Your task to perform on an android device: Go to ESPN.com Image 0: 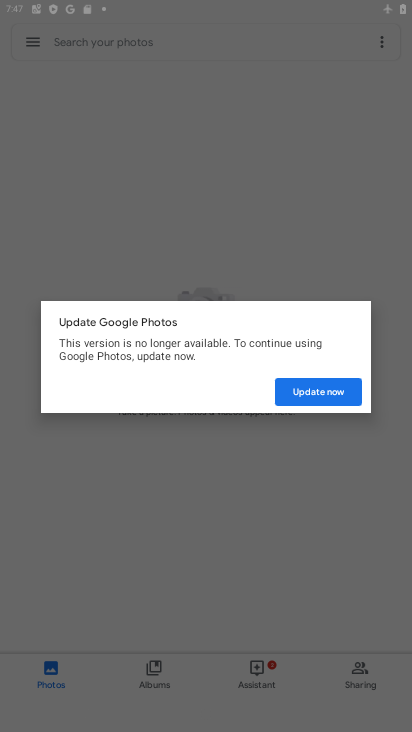
Step 0: drag from (326, 660) to (240, 55)
Your task to perform on an android device: Go to ESPN.com Image 1: 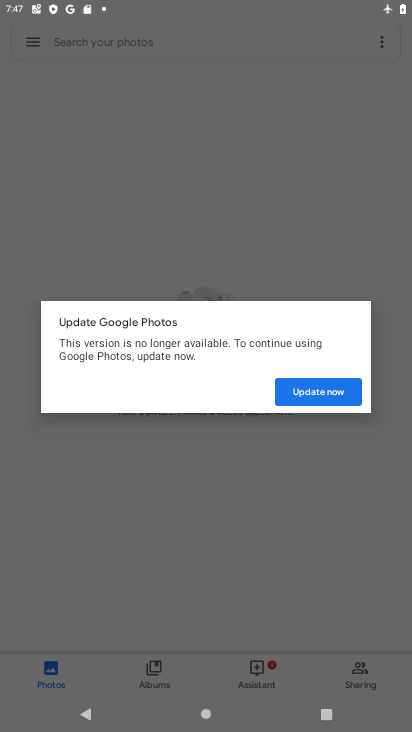
Step 1: click (206, 139)
Your task to perform on an android device: Go to ESPN.com Image 2: 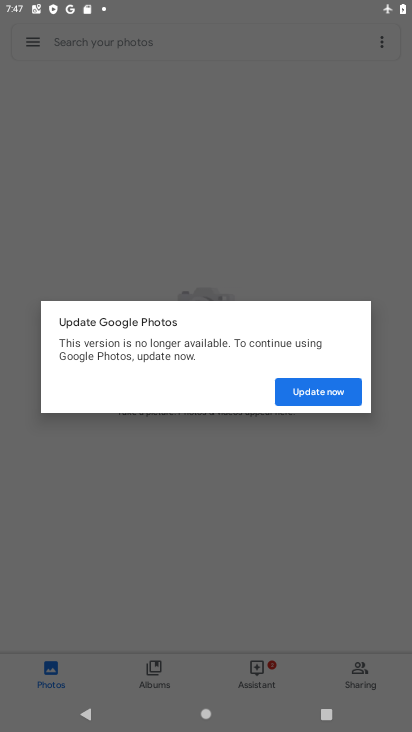
Step 2: click (206, 139)
Your task to perform on an android device: Go to ESPN.com Image 3: 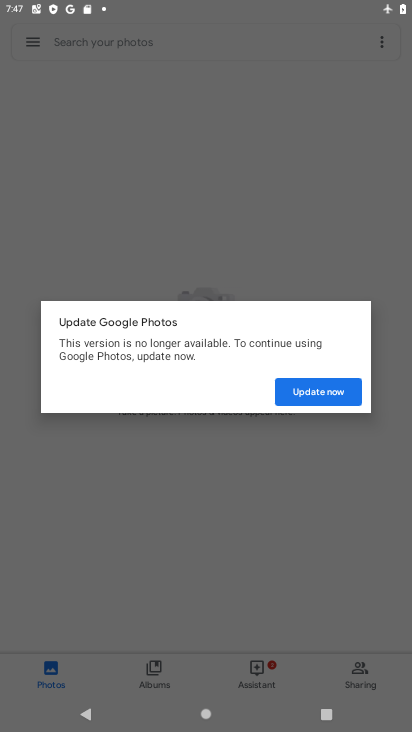
Step 3: click (207, 143)
Your task to perform on an android device: Go to ESPN.com Image 4: 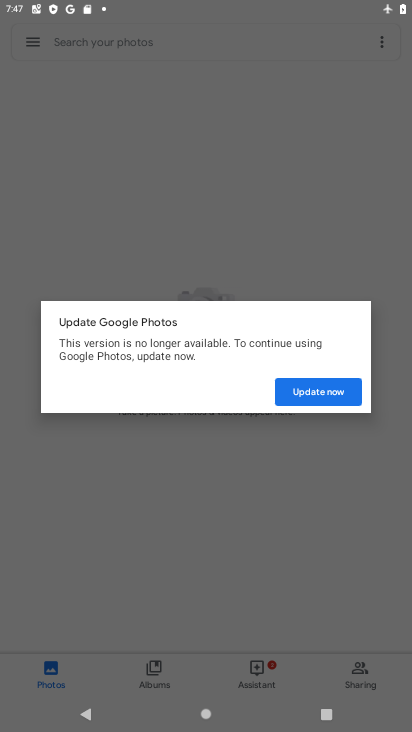
Step 4: click (220, 167)
Your task to perform on an android device: Go to ESPN.com Image 5: 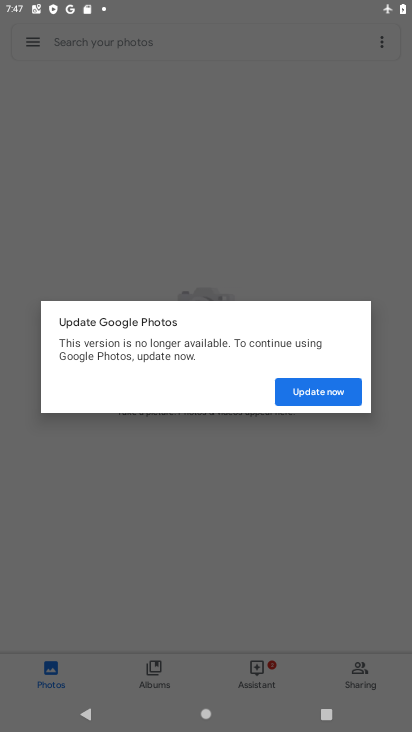
Step 5: click (236, 186)
Your task to perform on an android device: Go to ESPN.com Image 6: 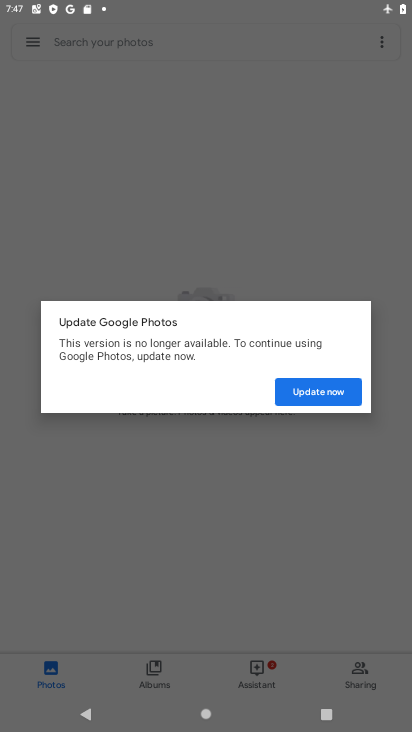
Step 6: click (263, 203)
Your task to perform on an android device: Go to ESPN.com Image 7: 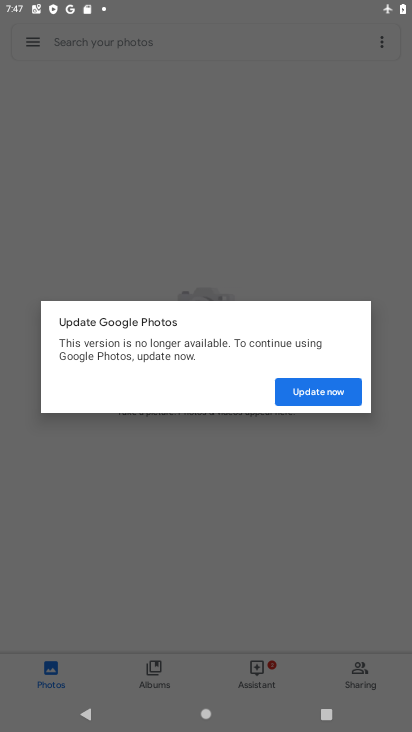
Step 7: click (402, 261)
Your task to perform on an android device: Go to ESPN.com Image 8: 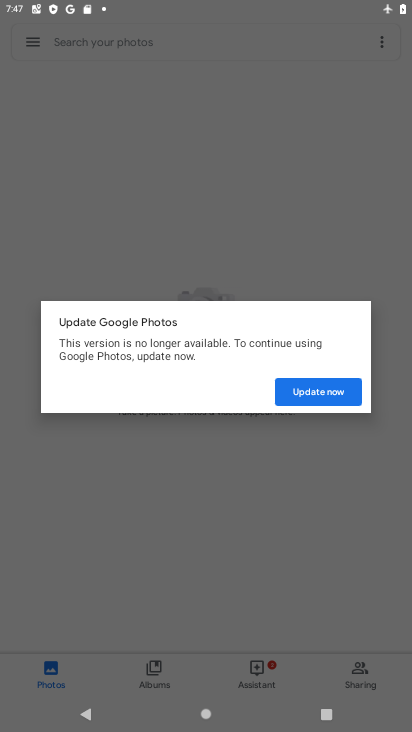
Step 8: click (248, 439)
Your task to perform on an android device: Go to ESPN.com Image 9: 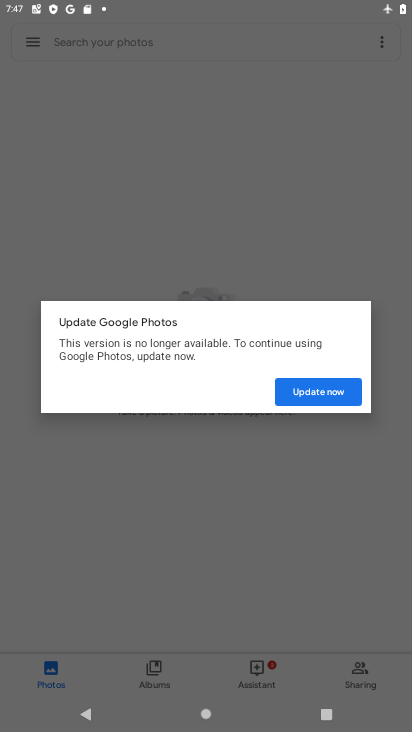
Step 9: click (242, 457)
Your task to perform on an android device: Go to ESPN.com Image 10: 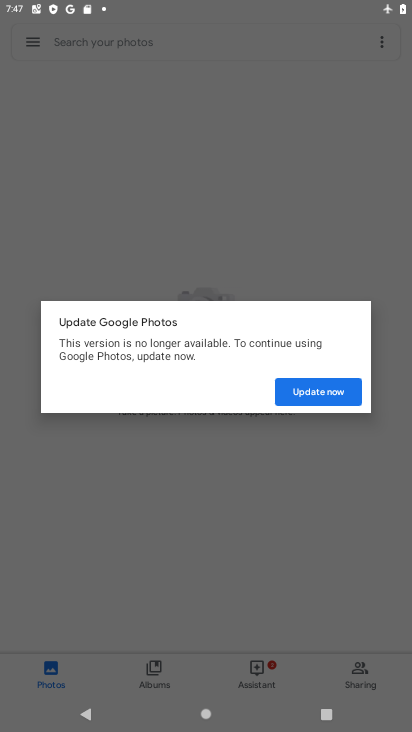
Step 10: click (242, 459)
Your task to perform on an android device: Go to ESPN.com Image 11: 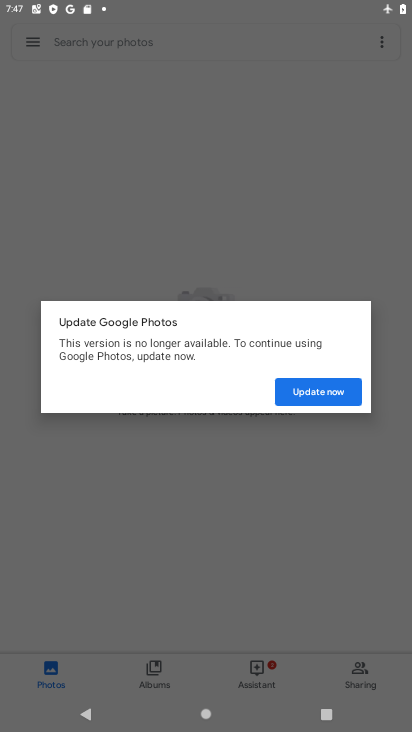
Step 11: click (259, 166)
Your task to perform on an android device: Go to ESPN.com Image 12: 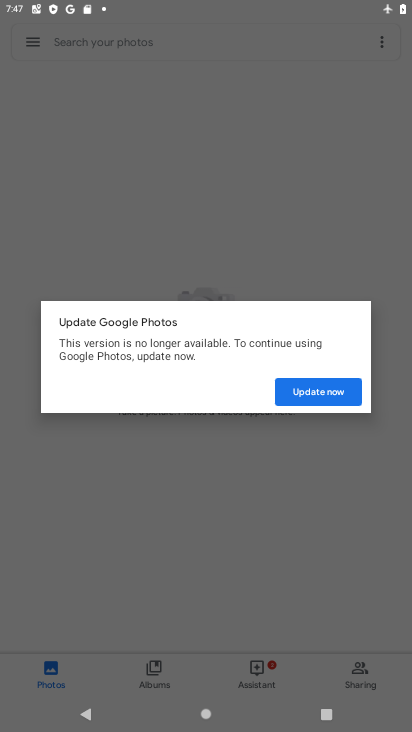
Step 12: click (270, 170)
Your task to perform on an android device: Go to ESPN.com Image 13: 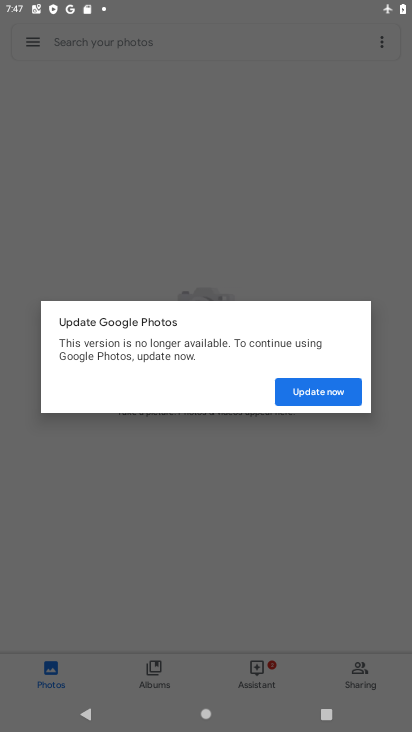
Step 13: click (287, 186)
Your task to perform on an android device: Go to ESPN.com Image 14: 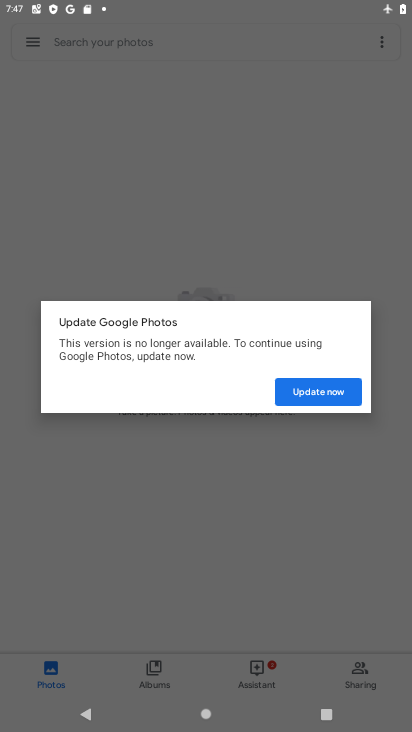
Step 14: click (291, 187)
Your task to perform on an android device: Go to ESPN.com Image 15: 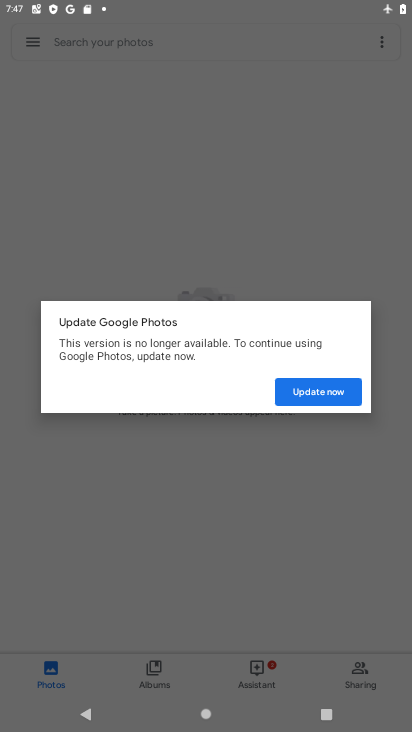
Step 15: click (339, 170)
Your task to perform on an android device: Go to ESPN.com Image 16: 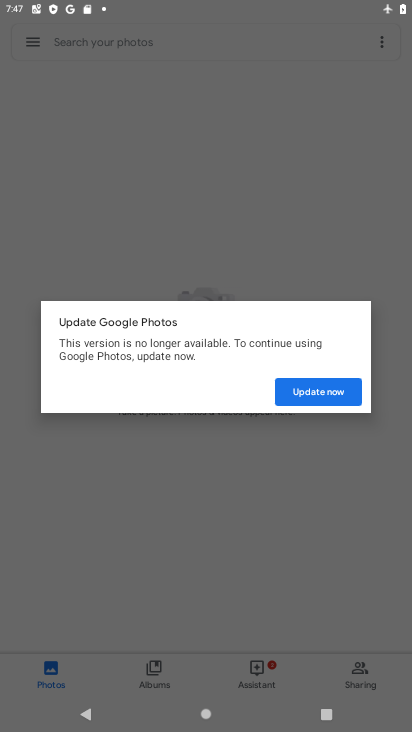
Step 16: click (340, 184)
Your task to perform on an android device: Go to ESPN.com Image 17: 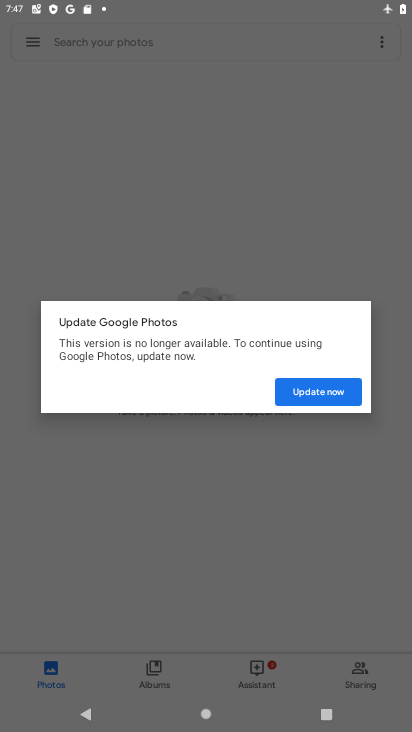
Step 17: click (344, 191)
Your task to perform on an android device: Go to ESPN.com Image 18: 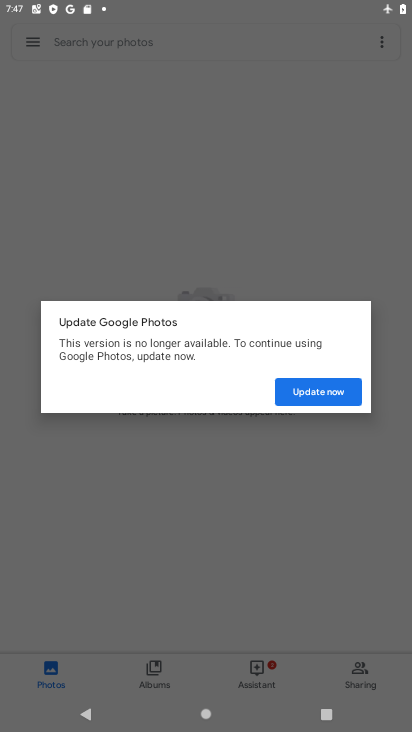
Step 18: click (400, 254)
Your task to perform on an android device: Go to ESPN.com Image 19: 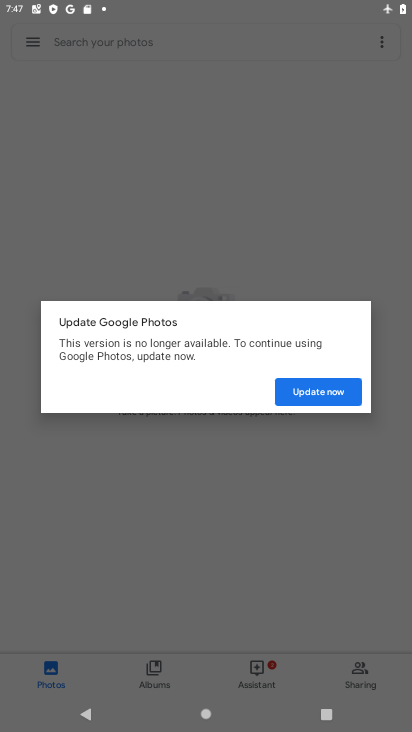
Step 19: click (372, 238)
Your task to perform on an android device: Go to ESPN.com Image 20: 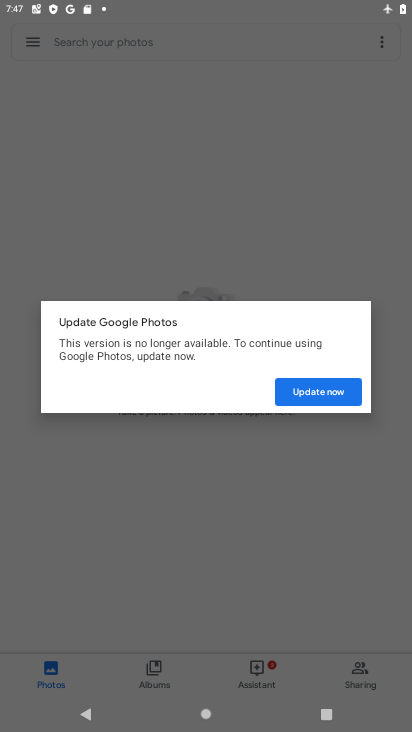
Step 20: click (372, 238)
Your task to perform on an android device: Go to ESPN.com Image 21: 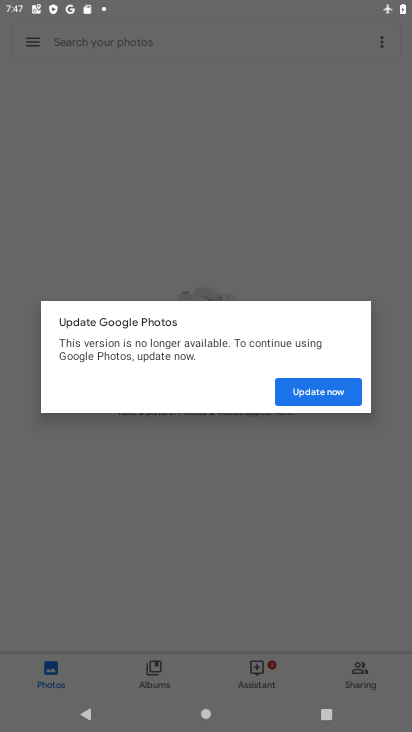
Step 21: click (381, 274)
Your task to perform on an android device: Go to ESPN.com Image 22: 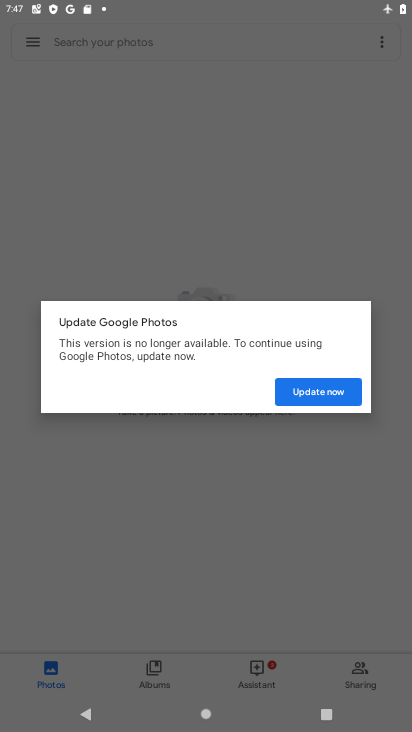
Step 22: click (381, 275)
Your task to perform on an android device: Go to ESPN.com Image 23: 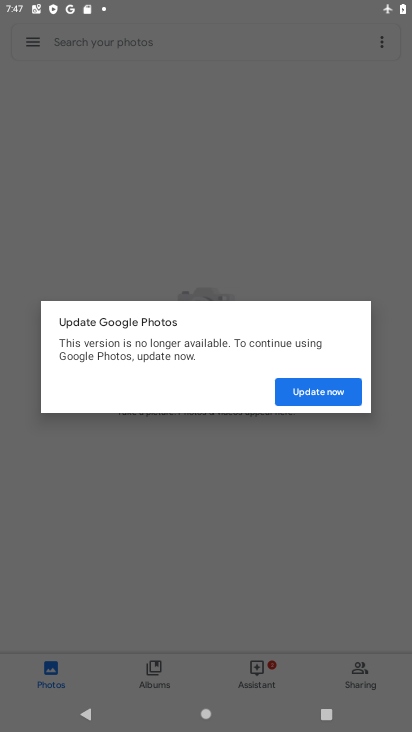
Step 23: click (352, 277)
Your task to perform on an android device: Go to ESPN.com Image 24: 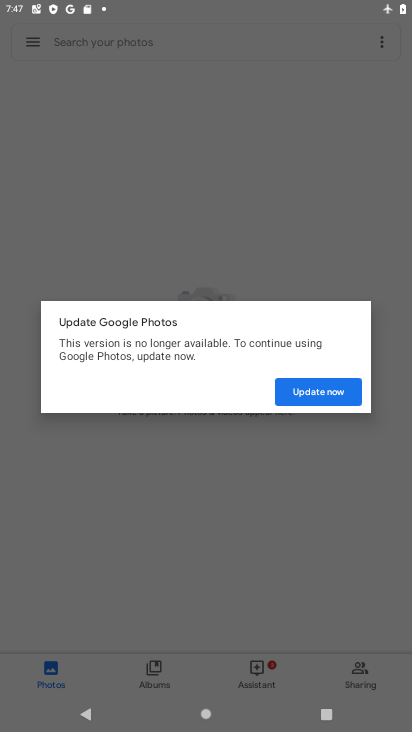
Step 24: click (336, 271)
Your task to perform on an android device: Go to ESPN.com Image 25: 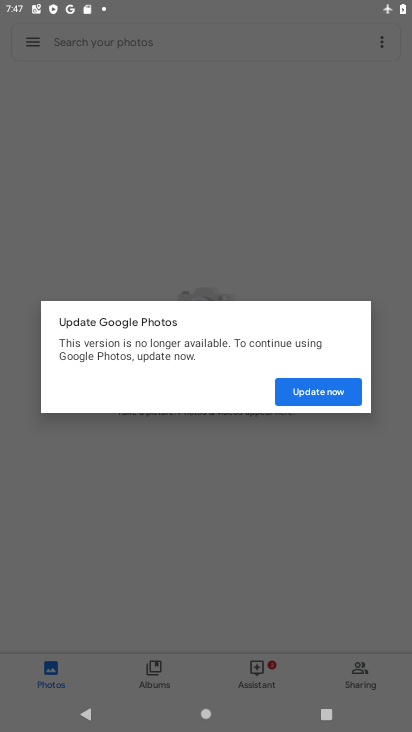
Step 25: press back button
Your task to perform on an android device: Go to ESPN.com Image 26: 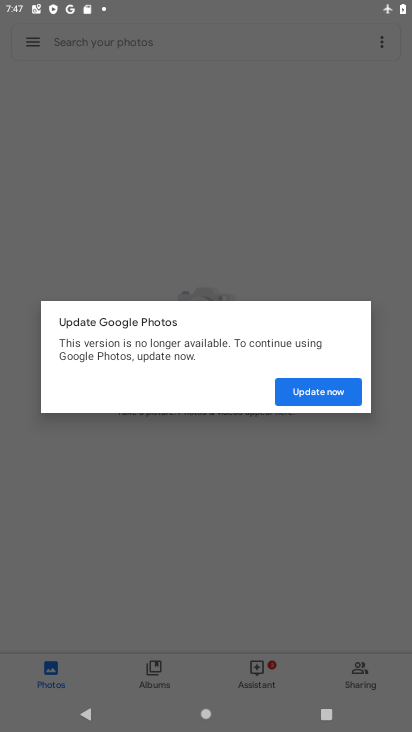
Step 26: press back button
Your task to perform on an android device: Go to ESPN.com Image 27: 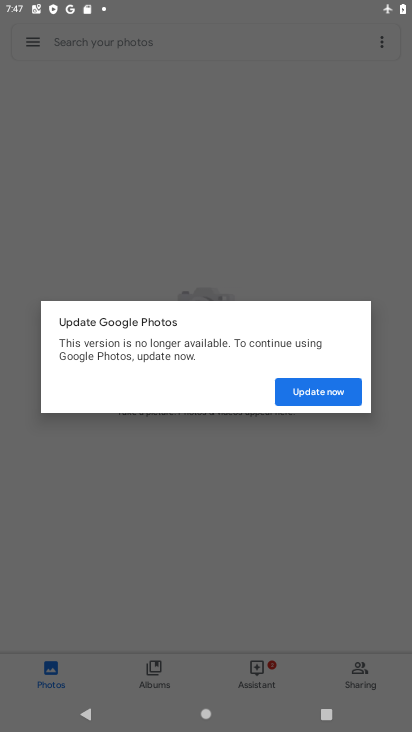
Step 27: press back button
Your task to perform on an android device: Go to ESPN.com Image 28: 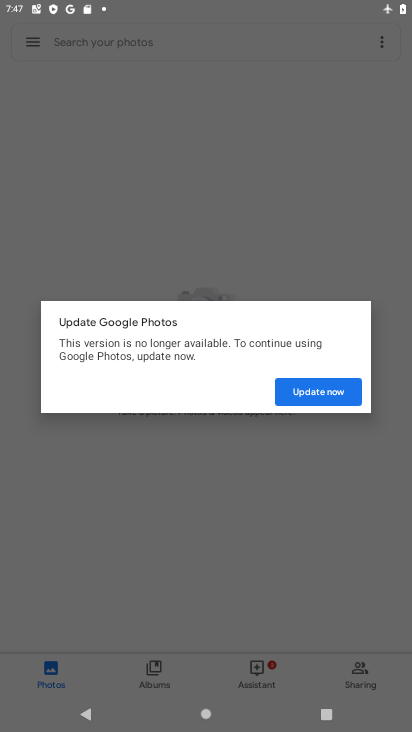
Step 28: press back button
Your task to perform on an android device: Go to ESPN.com Image 29: 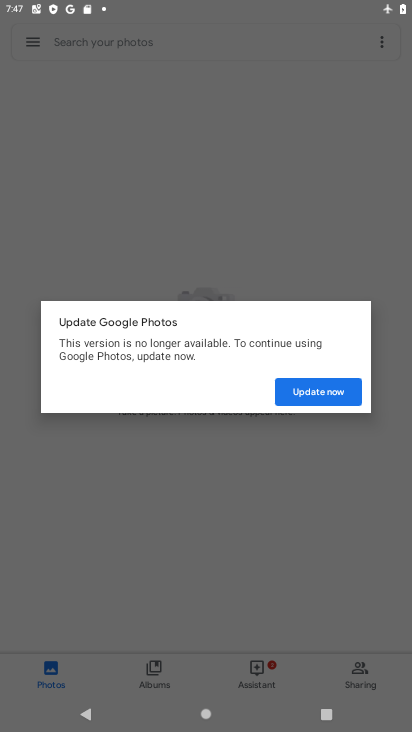
Step 29: press back button
Your task to perform on an android device: Go to ESPN.com Image 30: 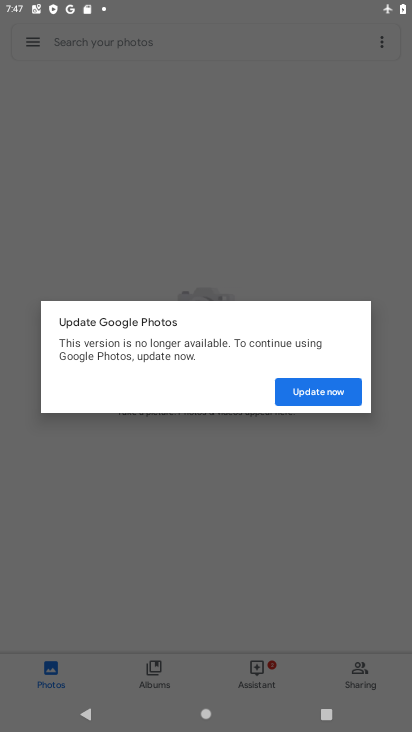
Step 30: click (145, 176)
Your task to perform on an android device: Go to ESPN.com Image 31: 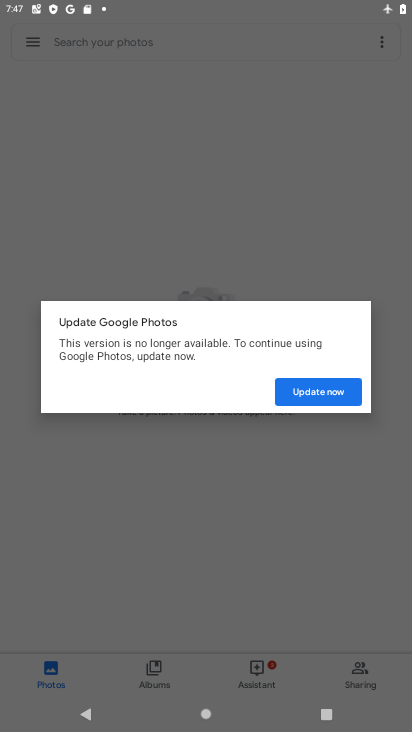
Step 31: click (146, 177)
Your task to perform on an android device: Go to ESPN.com Image 32: 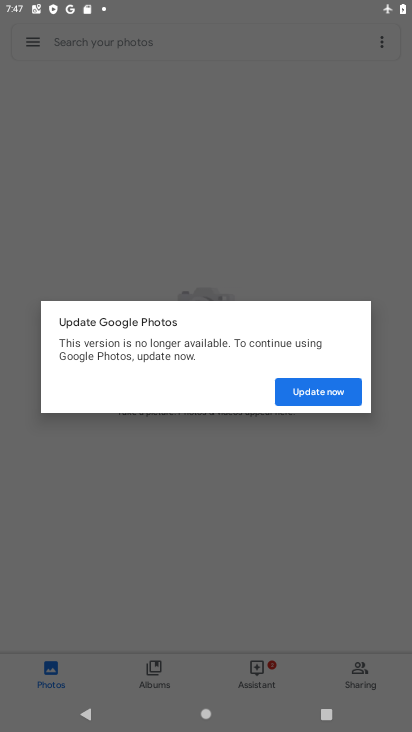
Step 32: click (153, 174)
Your task to perform on an android device: Go to ESPN.com Image 33: 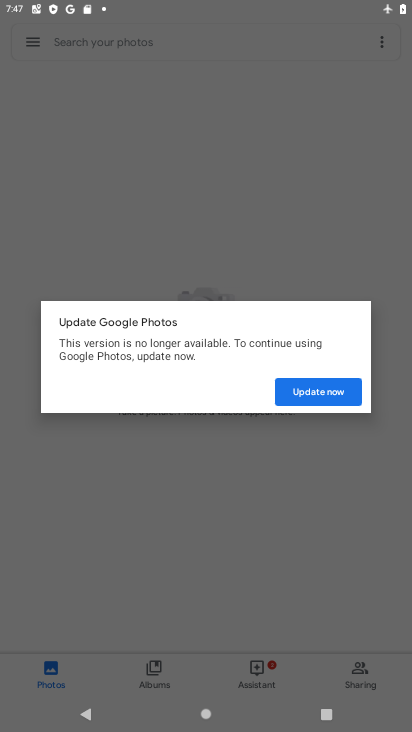
Step 33: click (152, 173)
Your task to perform on an android device: Go to ESPN.com Image 34: 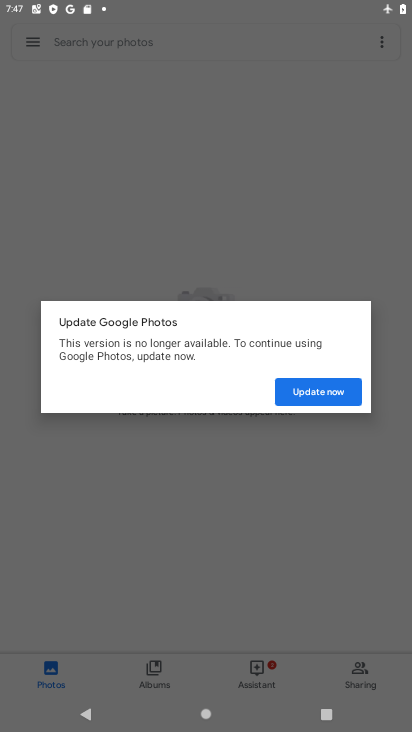
Step 34: click (153, 175)
Your task to perform on an android device: Go to ESPN.com Image 35: 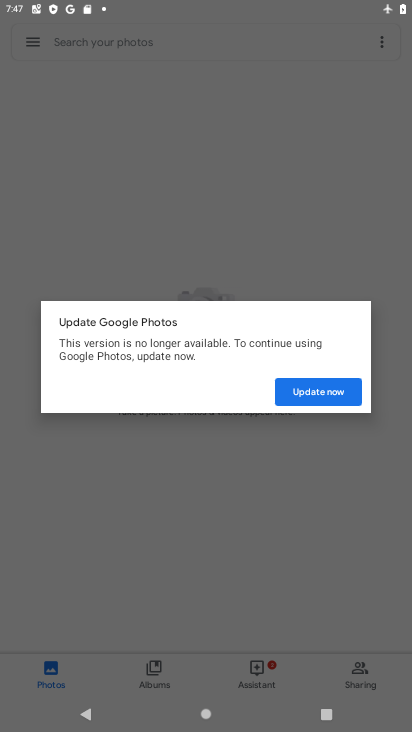
Step 35: click (195, 201)
Your task to perform on an android device: Go to ESPN.com Image 36: 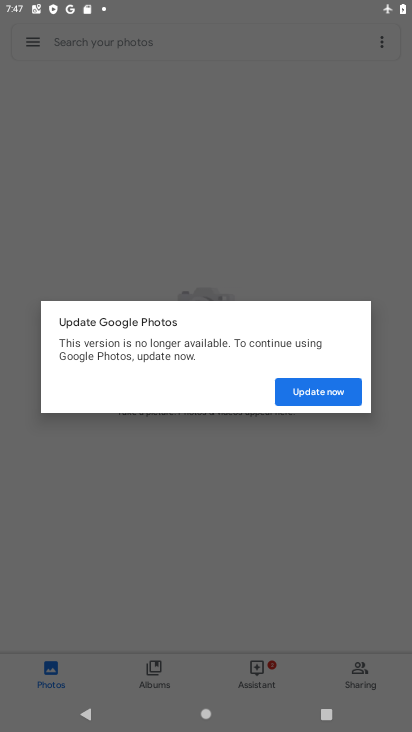
Step 36: click (207, 170)
Your task to perform on an android device: Go to ESPN.com Image 37: 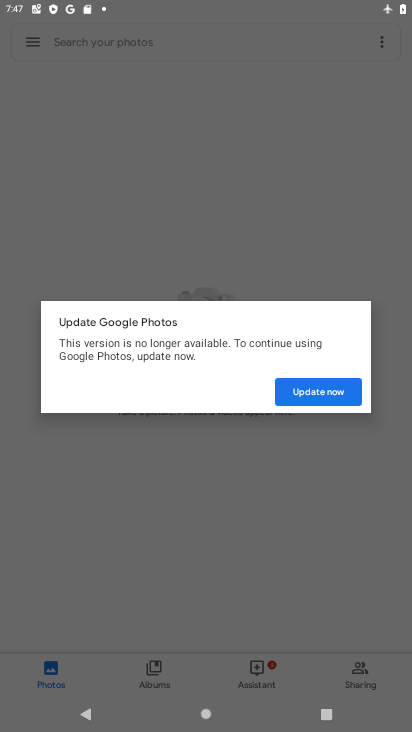
Step 37: press back button
Your task to perform on an android device: Go to ESPN.com Image 38: 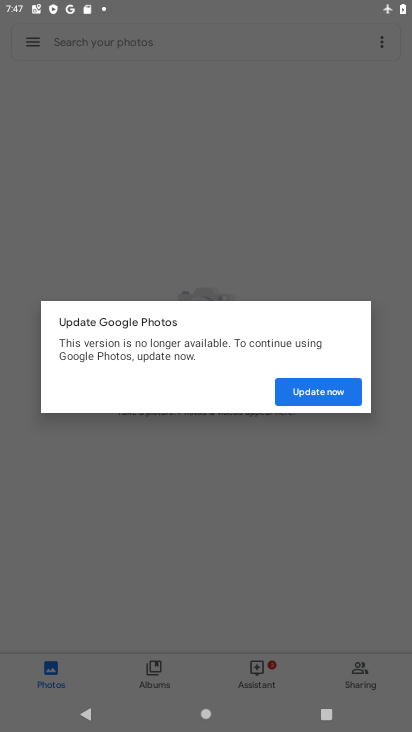
Step 38: press back button
Your task to perform on an android device: Go to ESPN.com Image 39: 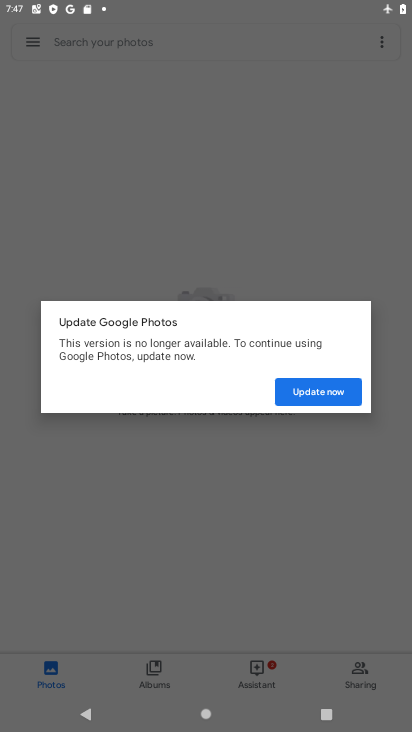
Step 39: press back button
Your task to perform on an android device: Go to ESPN.com Image 40: 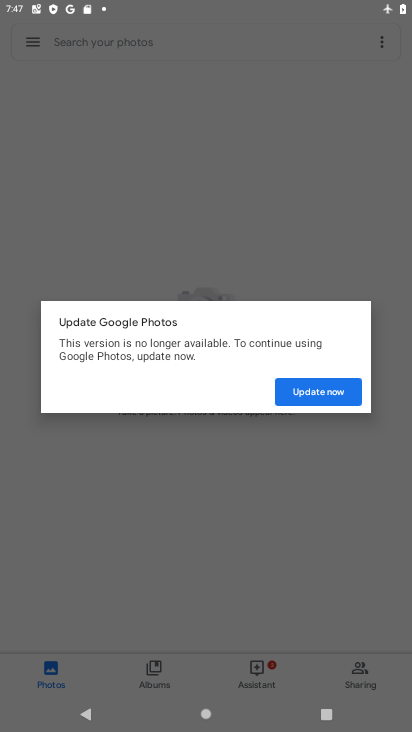
Step 40: press back button
Your task to perform on an android device: Go to ESPN.com Image 41: 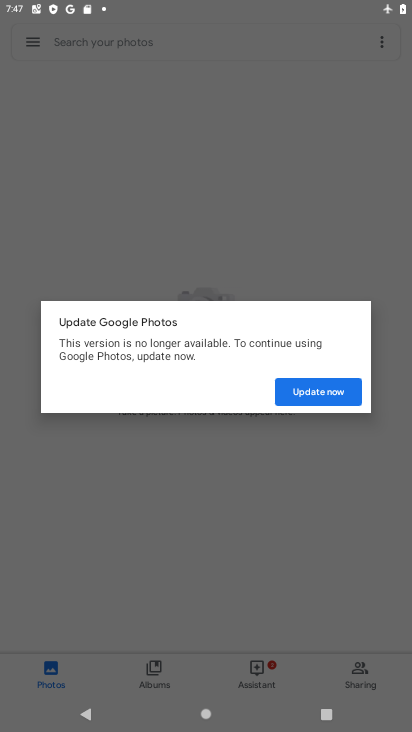
Step 41: press home button
Your task to perform on an android device: Go to ESPN.com Image 42: 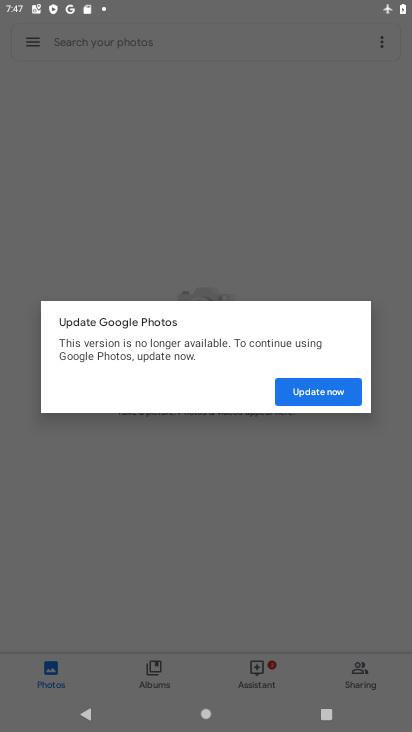
Step 42: press home button
Your task to perform on an android device: Go to ESPN.com Image 43: 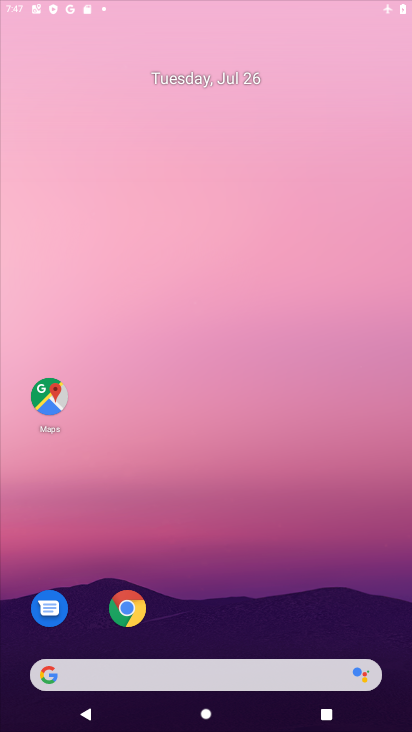
Step 43: press home button
Your task to perform on an android device: Go to ESPN.com Image 44: 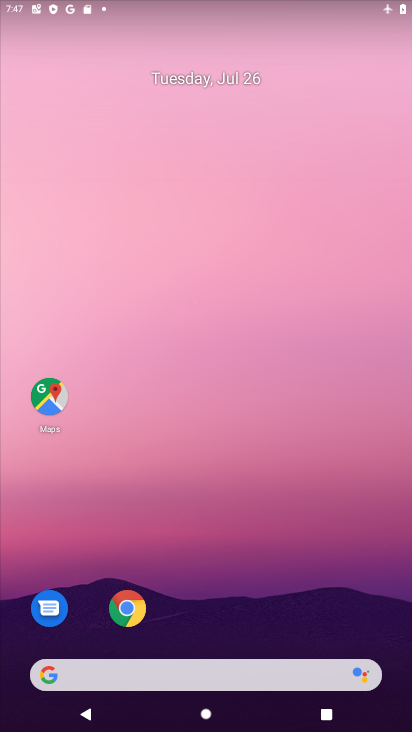
Step 44: press home button
Your task to perform on an android device: Go to ESPN.com Image 45: 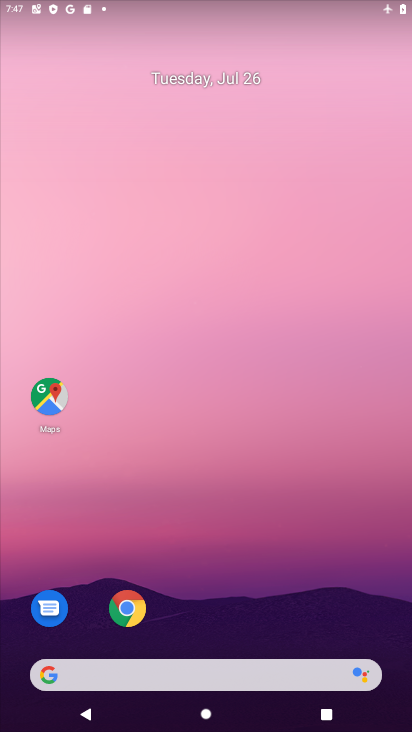
Step 45: drag from (210, 584) to (149, 311)
Your task to perform on an android device: Go to ESPN.com Image 46: 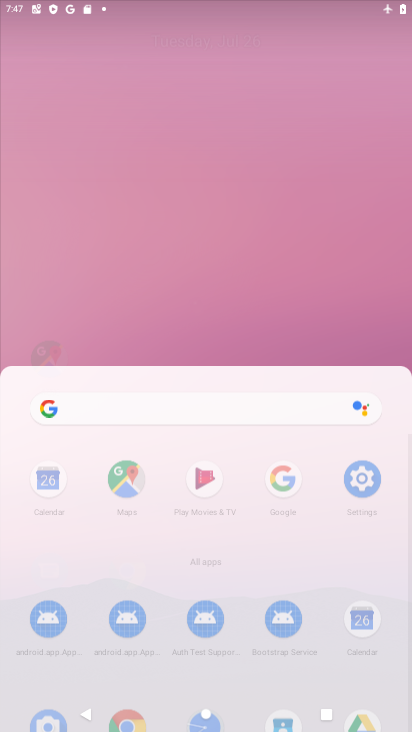
Step 46: drag from (184, 645) to (187, 297)
Your task to perform on an android device: Go to ESPN.com Image 47: 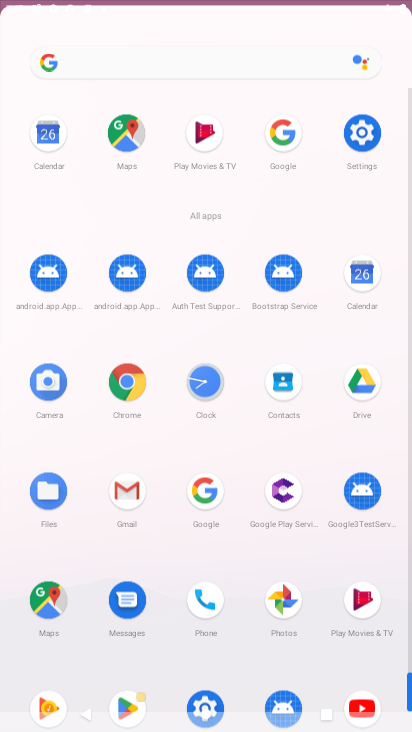
Step 47: drag from (281, 553) to (222, 144)
Your task to perform on an android device: Go to ESPN.com Image 48: 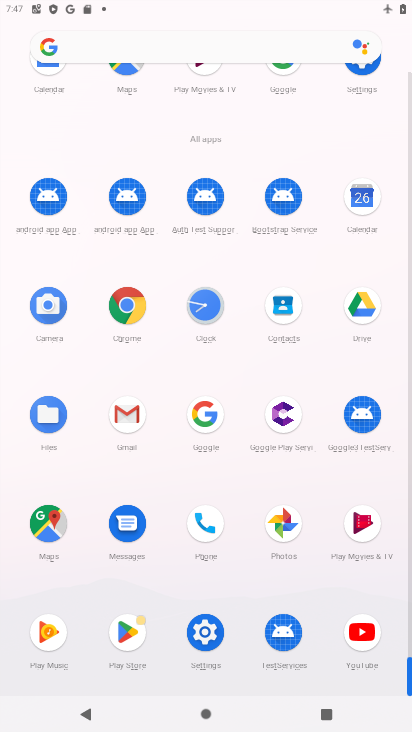
Step 48: click (126, 300)
Your task to perform on an android device: Go to ESPN.com Image 49: 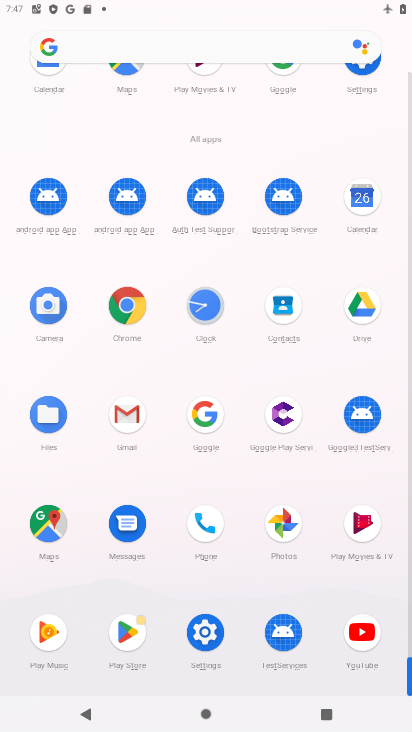
Step 49: click (126, 299)
Your task to perform on an android device: Go to ESPN.com Image 50: 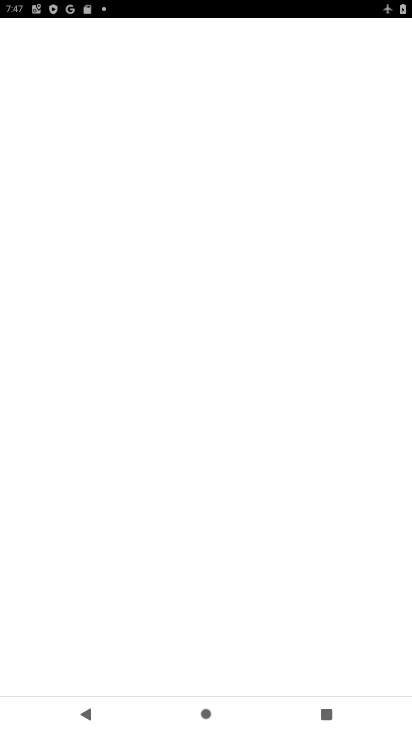
Step 50: click (125, 299)
Your task to perform on an android device: Go to ESPN.com Image 51: 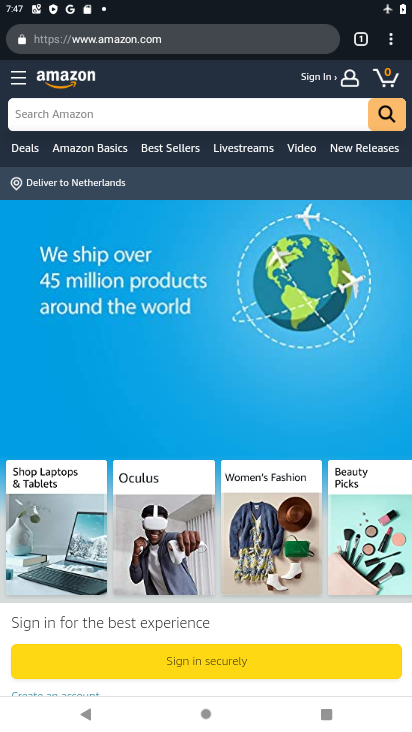
Step 51: drag from (390, 38) to (244, 70)
Your task to perform on an android device: Go to ESPN.com Image 52: 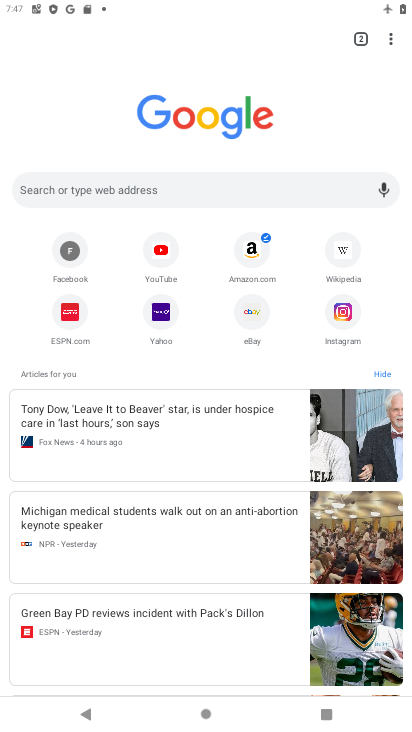
Step 52: click (63, 306)
Your task to perform on an android device: Go to ESPN.com Image 53: 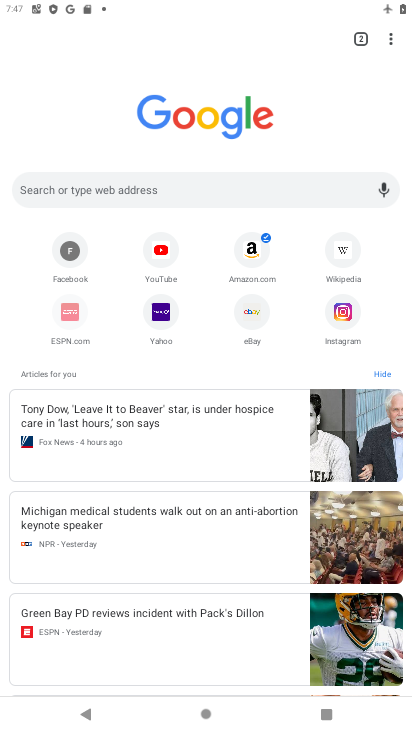
Step 53: click (63, 307)
Your task to perform on an android device: Go to ESPN.com Image 54: 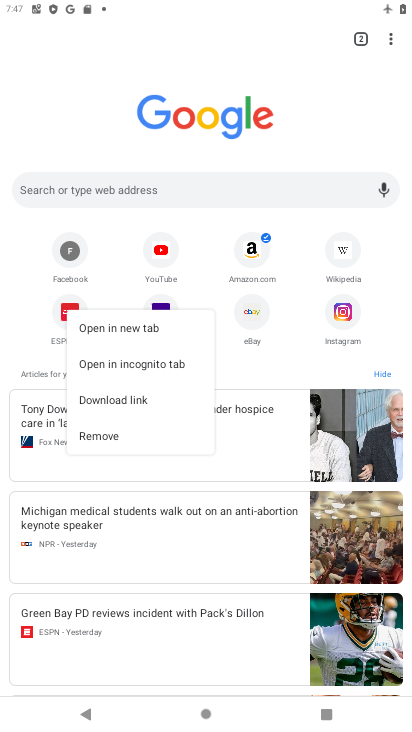
Step 54: click (60, 309)
Your task to perform on an android device: Go to ESPN.com Image 55: 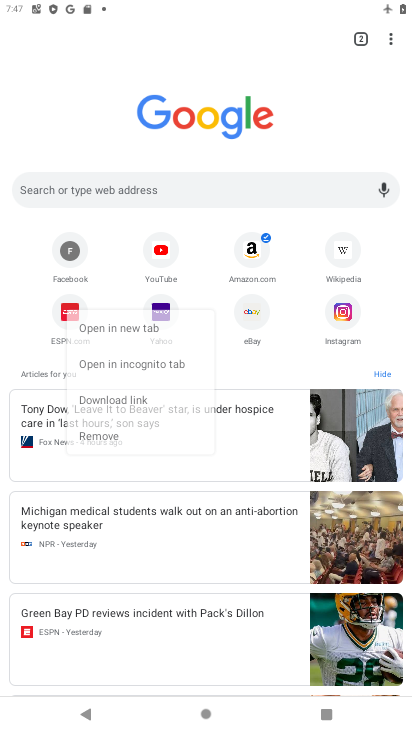
Step 55: click (57, 311)
Your task to perform on an android device: Go to ESPN.com Image 56: 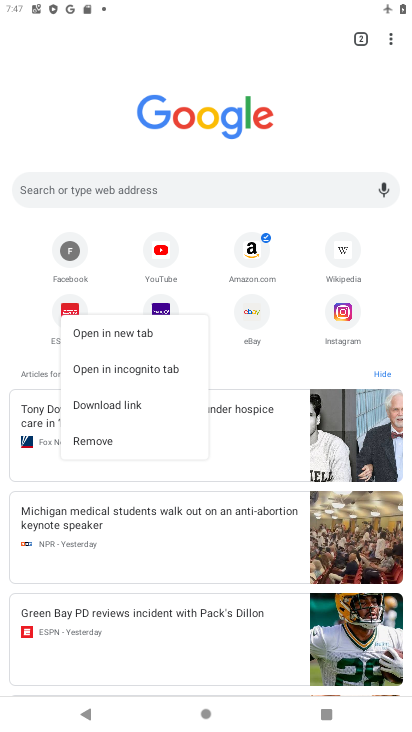
Step 56: task complete